Your task to perform on an android device: toggle notification dots Image 0: 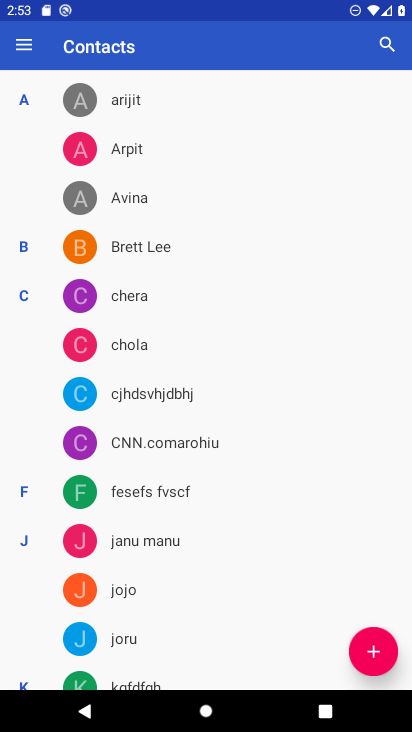
Step 0: press home button
Your task to perform on an android device: toggle notification dots Image 1: 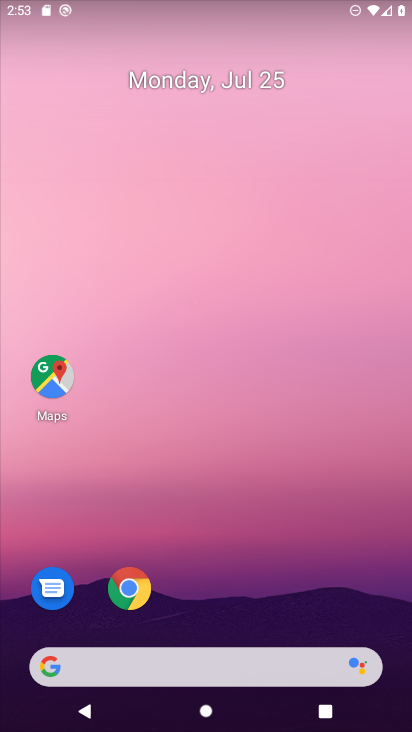
Step 1: drag from (271, 622) to (284, 117)
Your task to perform on an android device: toggle notification dots Image 2: 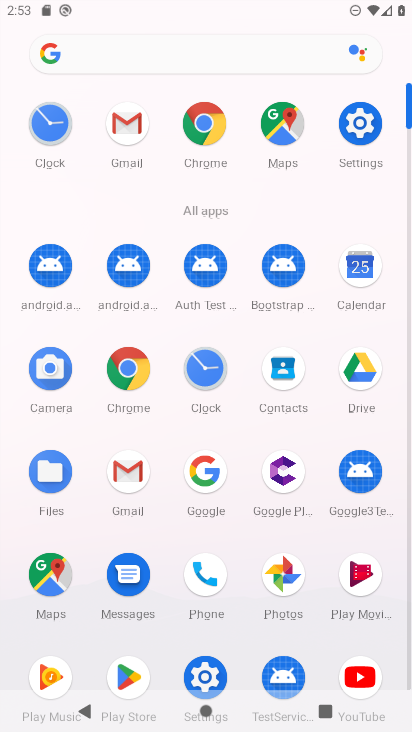
Step 2: click (366, 105)
Your task to perform on an android device: toggle notification dots Image 3: 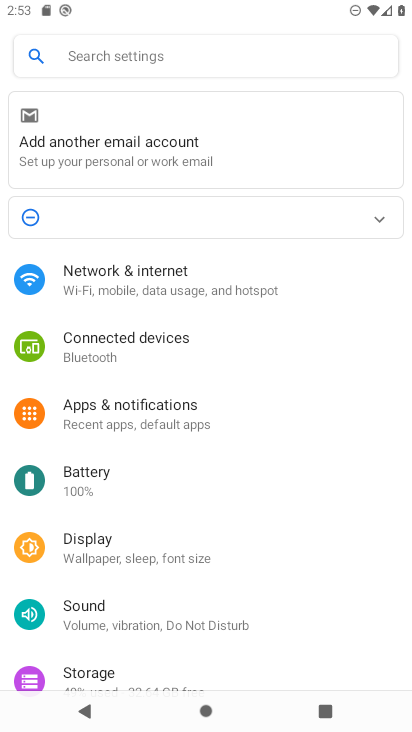
Step 3: click (106, 45)
Your task to perform on an android device: toggle notification dots Image 4: 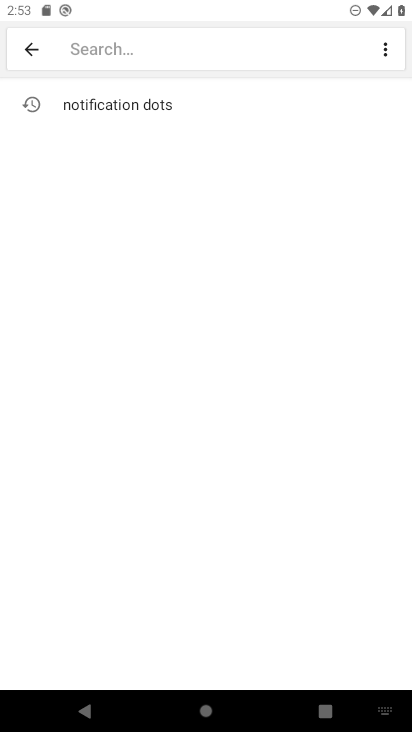
Step 4: click (144, 91)
Your task to perform on an android device: toggle notification dots Image 5: 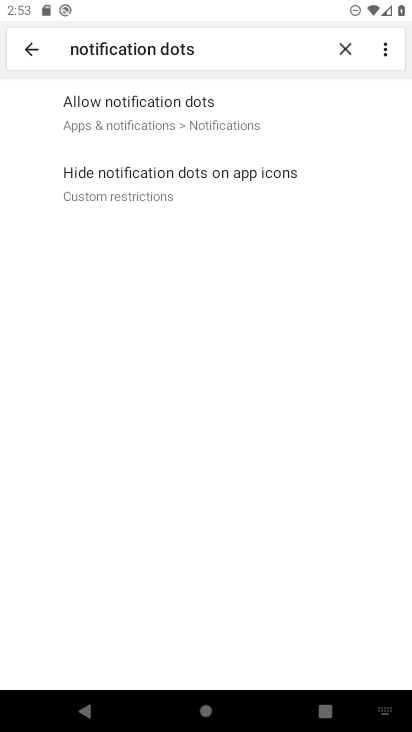
Step 5: click (232, 96)
Your task to perform on an android device: toggle notification dots Image 6: 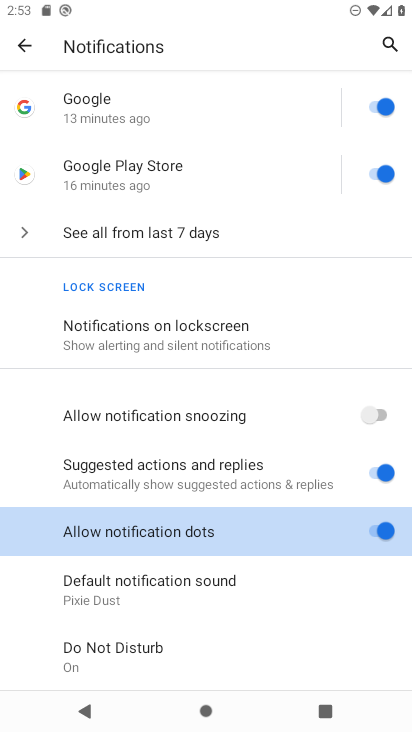
Step 6: click (381, 524)
Your task to perform on an android device: toggle notification dots Image 7: 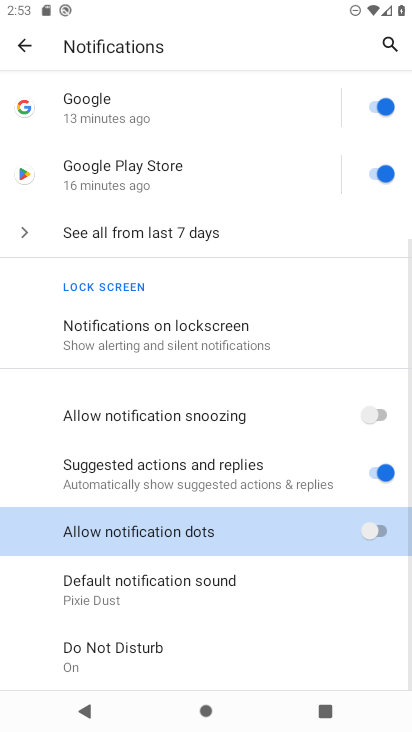
Step 7: task complete